Your task to perform on an android device: turn notification dots on Image 0: 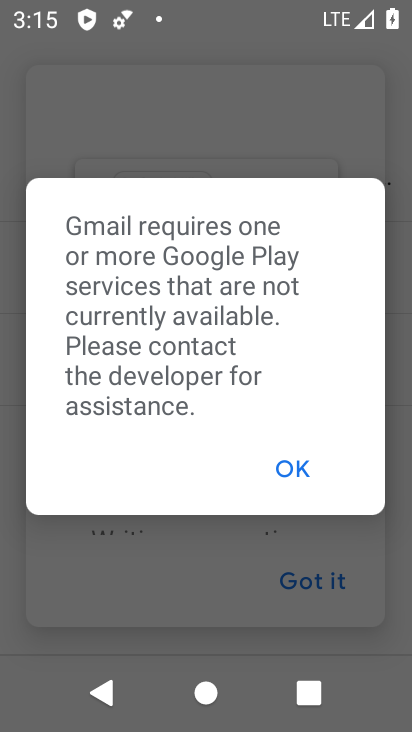
Step 0: click (314, 474)
Your task to perform on an android device: turn notification dots on Image 1: 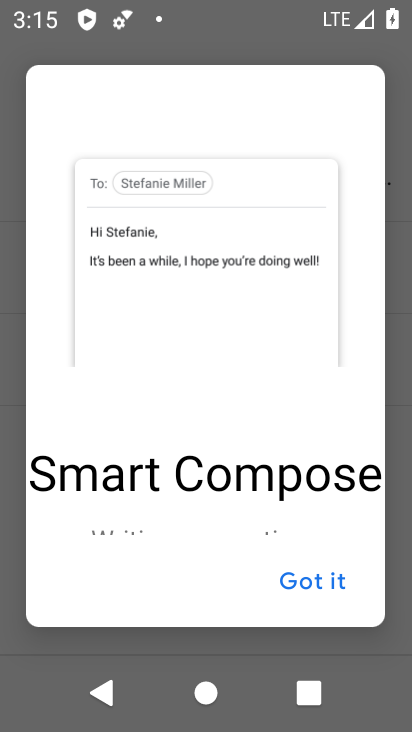
Step 1: press home button
Your task to perform on an android device: turn notification dots on Image 2: 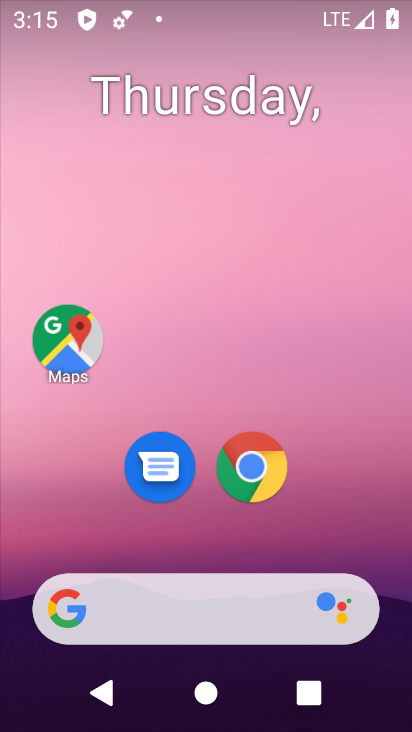
Step 2: drag from (185, 627) to (281, 156)
Your task to perform on an android device: turn notification dots on Image 3: 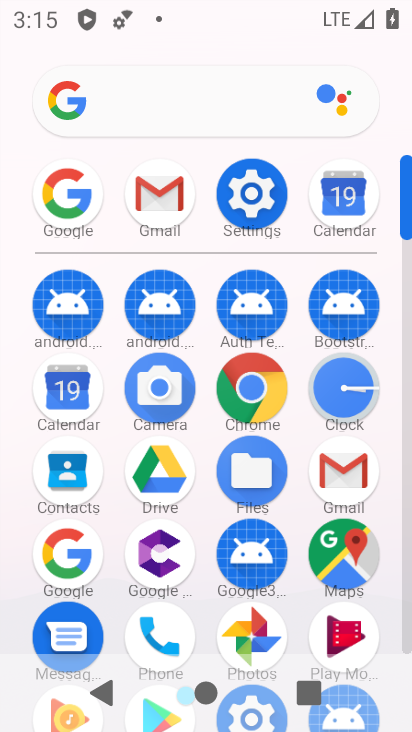
Step 3: click (227, 202)
Your task to perform on an android device: turn notification dots on Image 4: 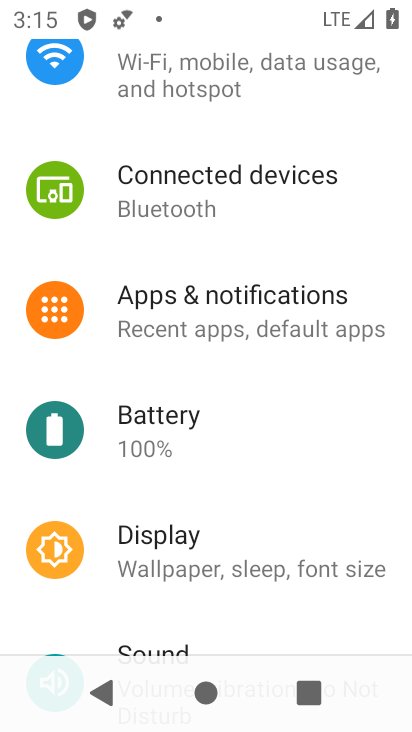
Step 4: click (242, 305)
Your task to perform on an android device: turn notification dots on Image 5: 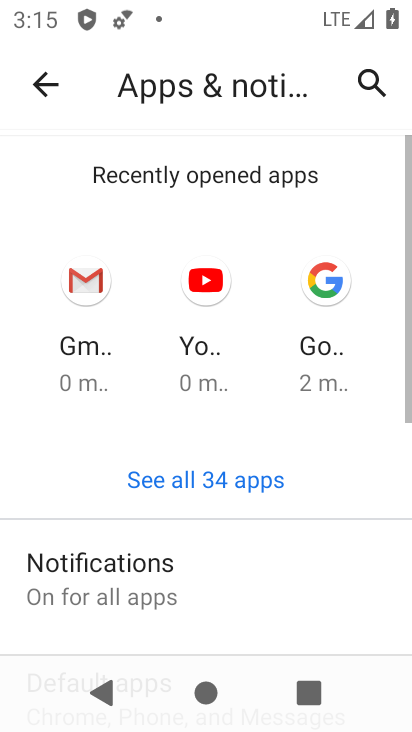
Step 5: drag from (205, 553) to (260, 145)
Your task to perform on an android device: turn notification dots on Image 6: 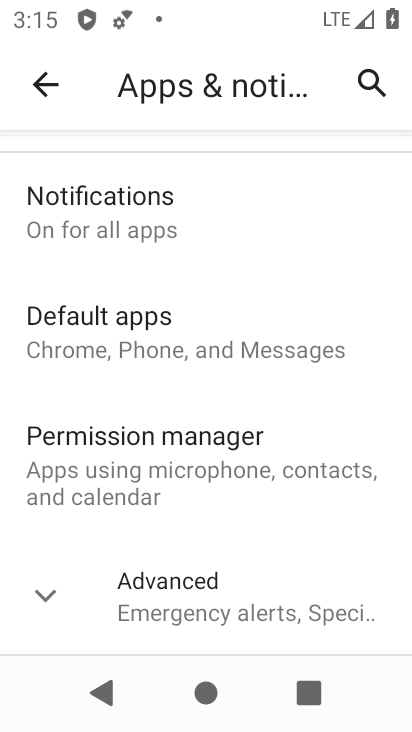
Step 6: drag from (170, 491) to (219, 100)
Your task to perform on an android device: turn notification dots on Image 7: 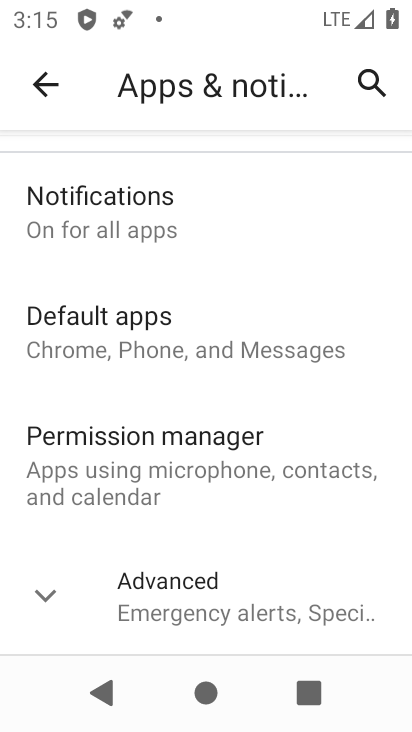
Step 7: click (135, 603)
Your task to perform on an android device: turn notification dots on Image 8: 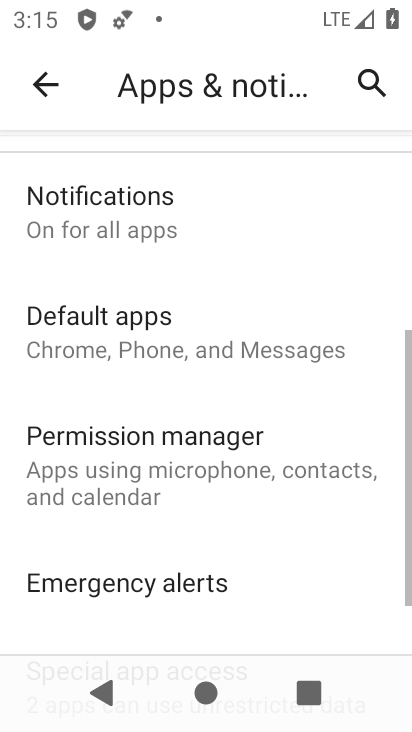
Step 8: click (208, 549)
Your task to perform on an android device: turn notification dots on Image 9: 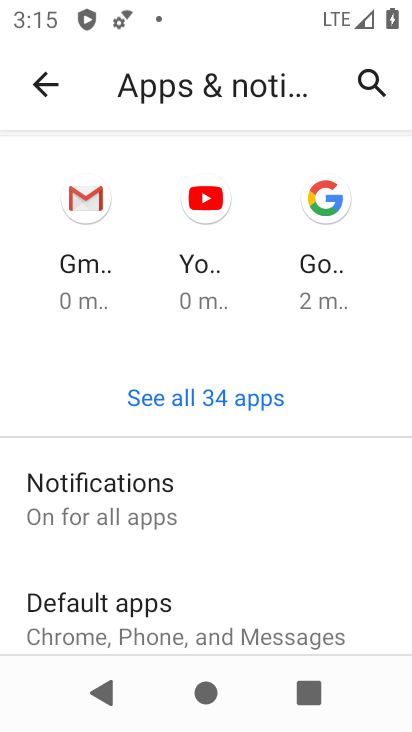
Step 9: drag from (133, 324) to (157, 257)
Your task to perform on an android device: turn notification dots on Image 10: 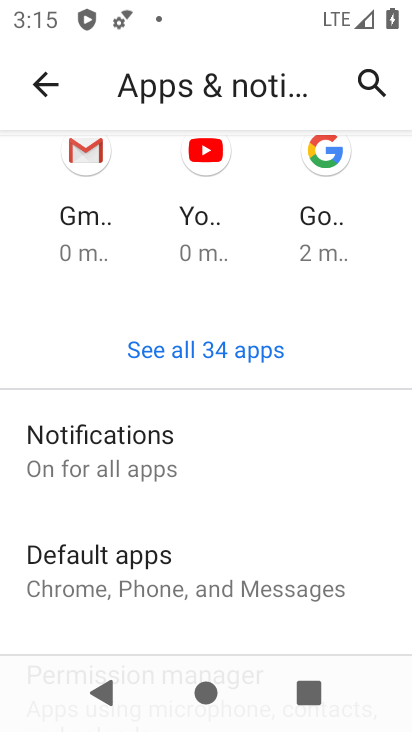
Step 10: click (158, 470)
Your task to perform on an android device: turn notification dots on Image 11: 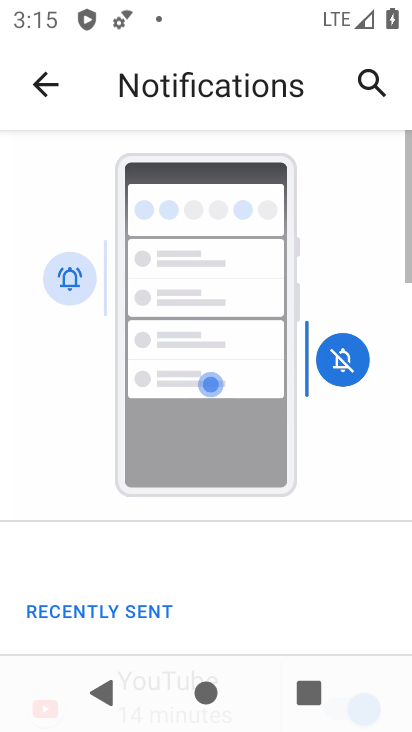
Step 11: drag from (219, 593) to (290, 160)
Your task to perform on an android device: turn notification dots on Image 12: 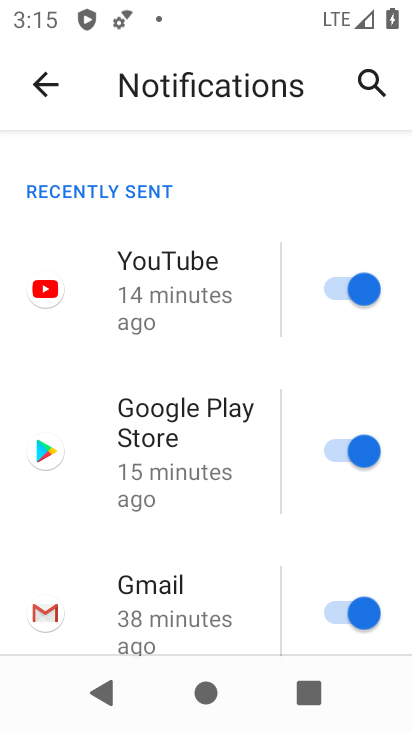
Step 12: drag from (199, 606) to (248, 191)
Your task to perform on an android device: turn notification dots on Image 13: 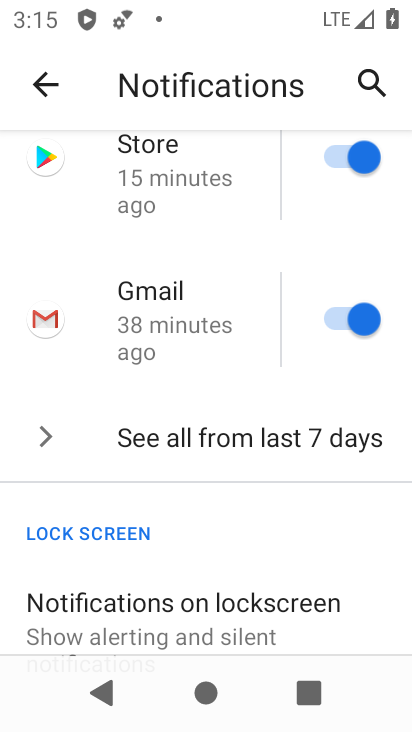
Step 13: drag from (200, 568) to (252, 245)
Your task to perform on an android device: turn notification dots on Image 14: 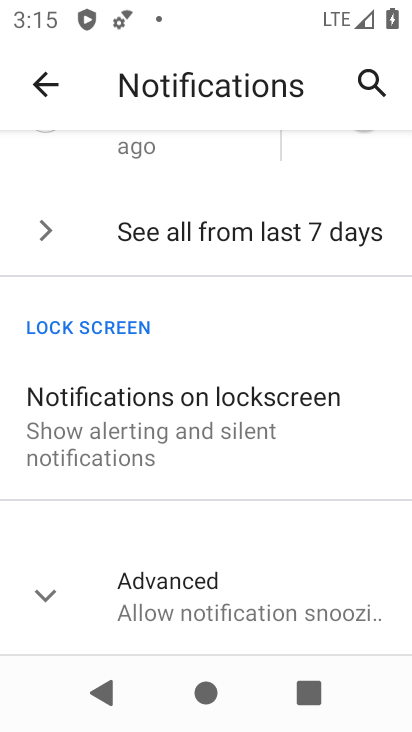
Step 14: click (178, 613)
Your task to perform on an android device: turn notification dots on Image 15: 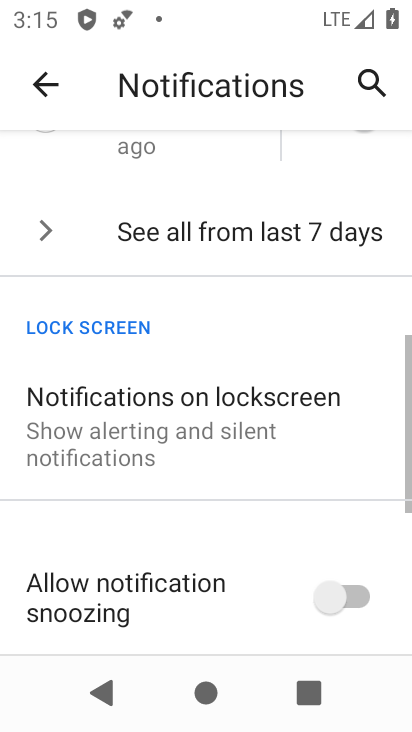
Step 15: task complete